Your task to perform on an android device: Search for vegetarian restaurants on Maps Image 0: 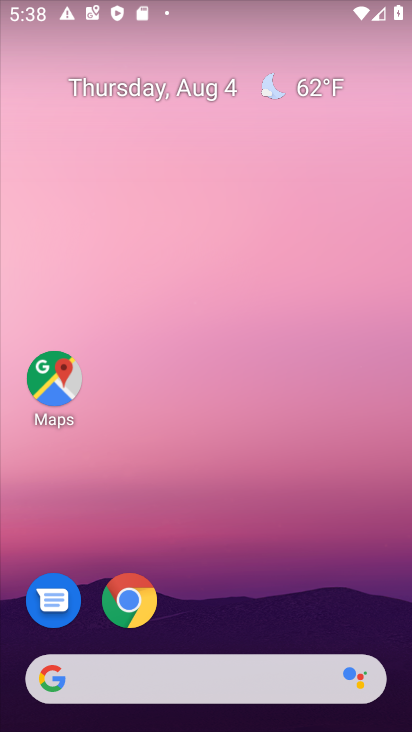
Step 0: click (53, 380)
Your task to perform on an android device: Search for vegetarian restaurants on Maps Image 1: 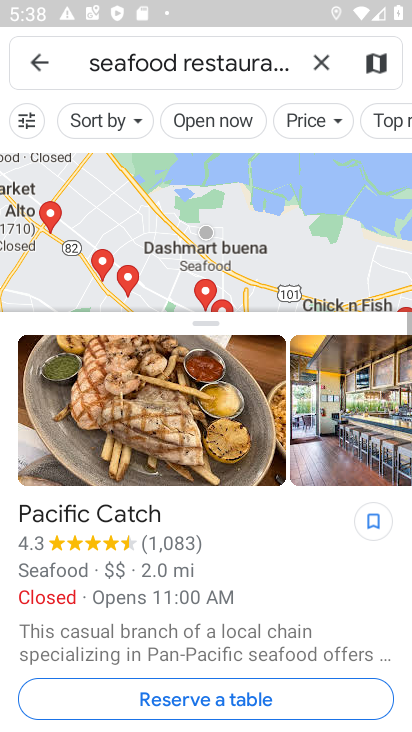
Step 1: click (325, 56)
Your task to perform on an android device: Search for vegetarian restaurants on Maps Image 2: 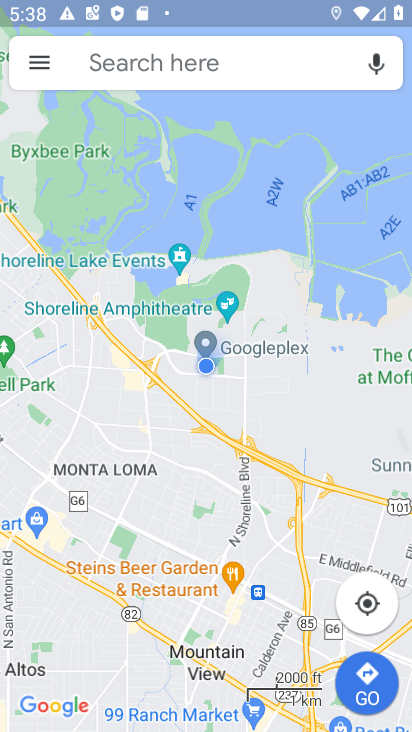
Step 2: click (154, 75)
Your task to perform on an android device: Search for vegetarian restaurants on Maps Image 3: 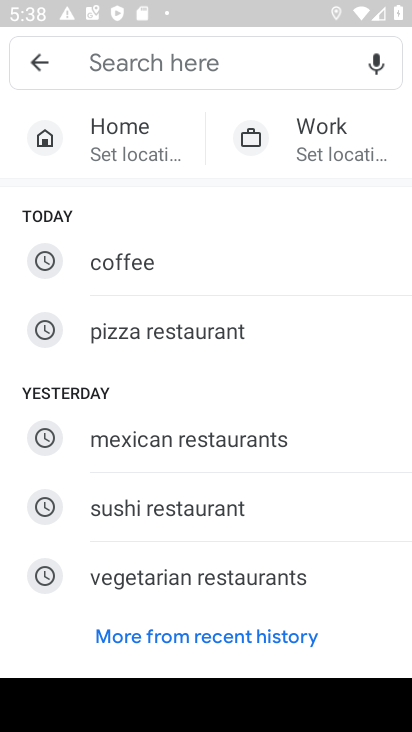
Step 3: type "vegetarian restaurants"
Your task to perform on an android device: Search for vegetarian restaurants on Maps Image 4: 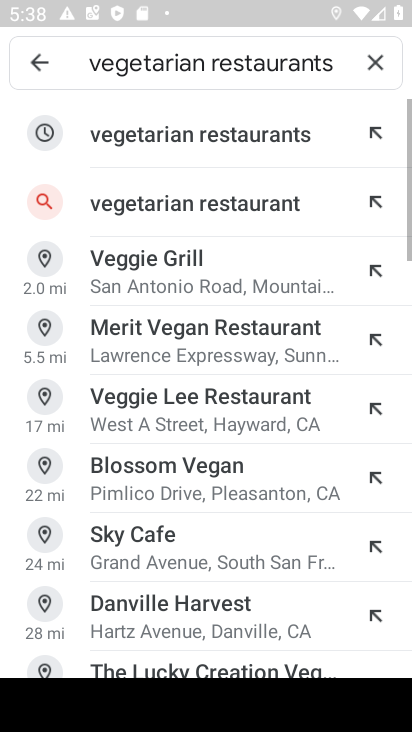
Step 4: click (175, 136)
Your task to perform on an android device: Search for vegetarian restaurants on Maps Image 5: 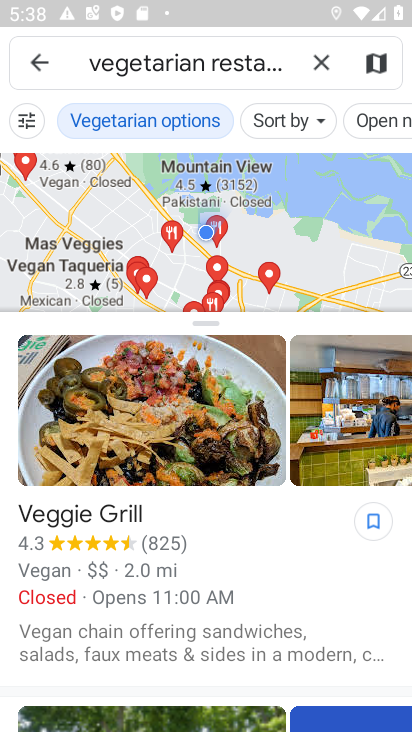
Step 5: task complete